Your task to perform on an android device: Open Yahoo.com Image 0: 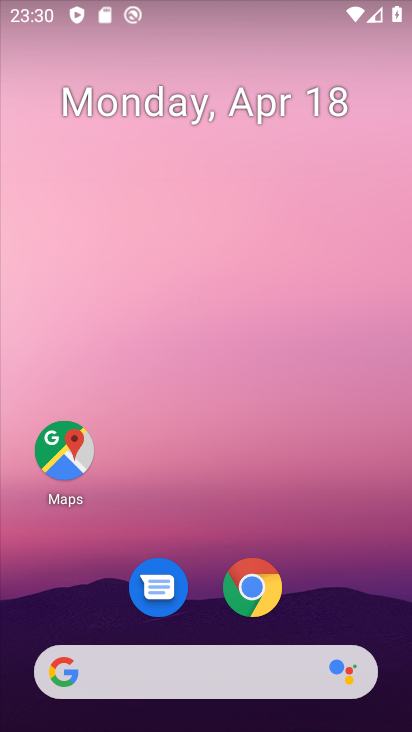
Step 0: drag from (369, 563) to (377, 163)
Your task to perform on an android device: Open Yahoo.com Image 1: 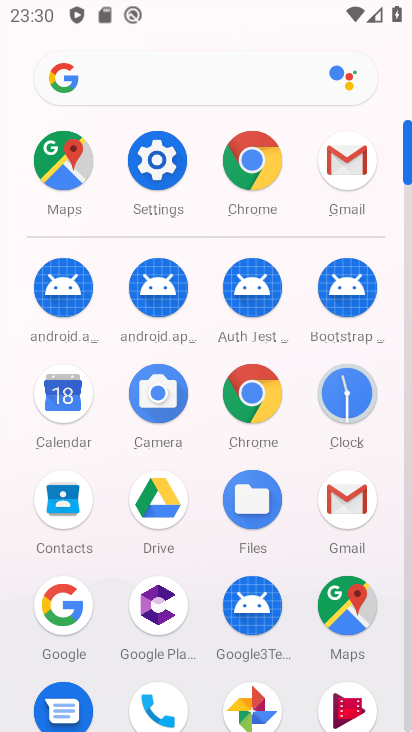
Step 1: click (258, 162)
Your task to perform on an android device: Open Yahoo.com Image 2: 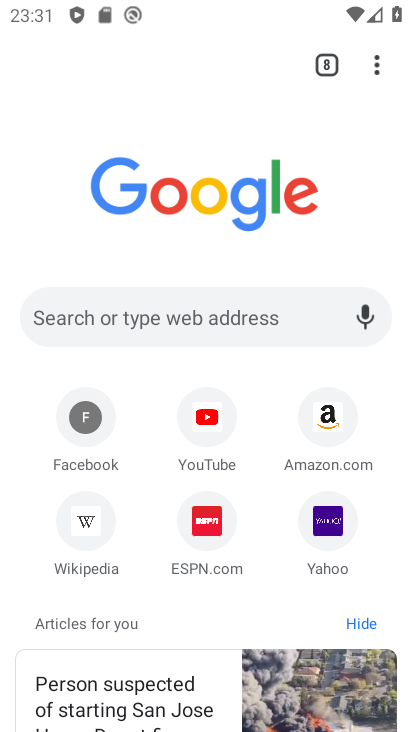
Step 2: click (334, 527)
Your task to perform on an android device: Open Yahoo.com Image 3: 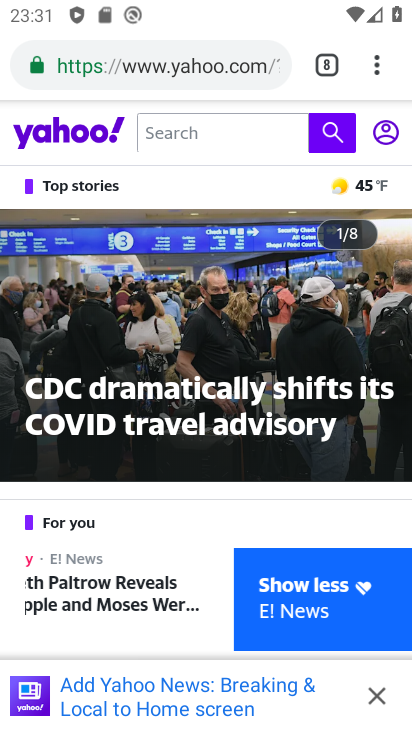
Step 3: task complete